Your task to perform on an android device: see tabs open on other devices in the chrome app Image 0: 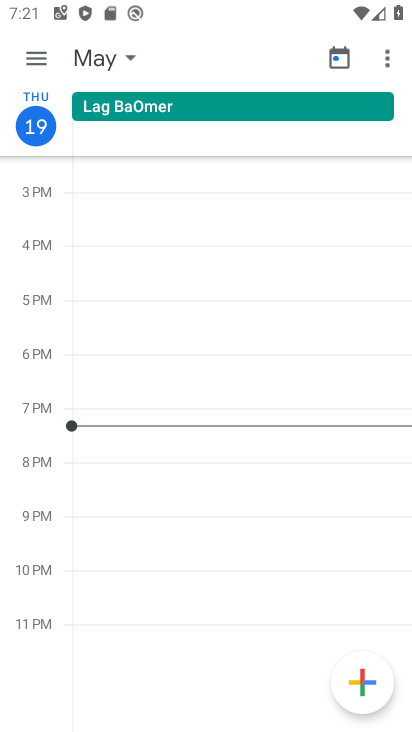
Step 0: press home button
Your task to perform on an android device: see tabs open on other devices in the chrome app Image 1: 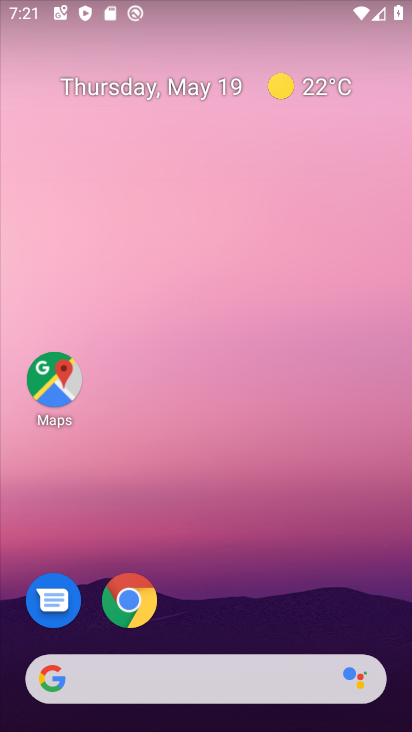
Step 1: drag from (290, 588) to (296, 163)
Your task to perform on an android device: see tabs open on other devices in the chrome app Image 2: 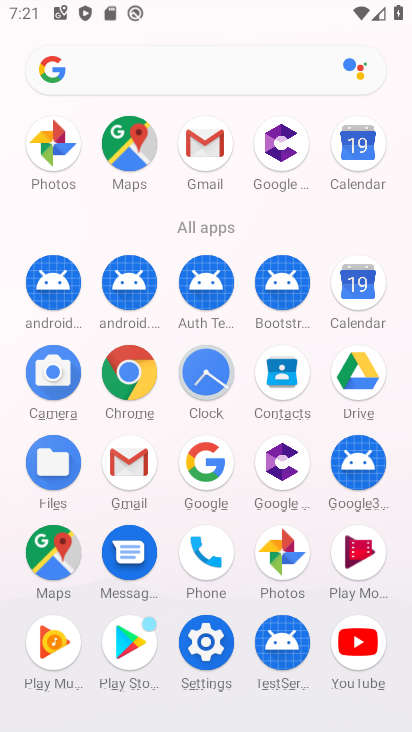
Step 2: click (124, 392)
Your task to perform on an android device: see tabs open on other devices in the chrome app Image 3: 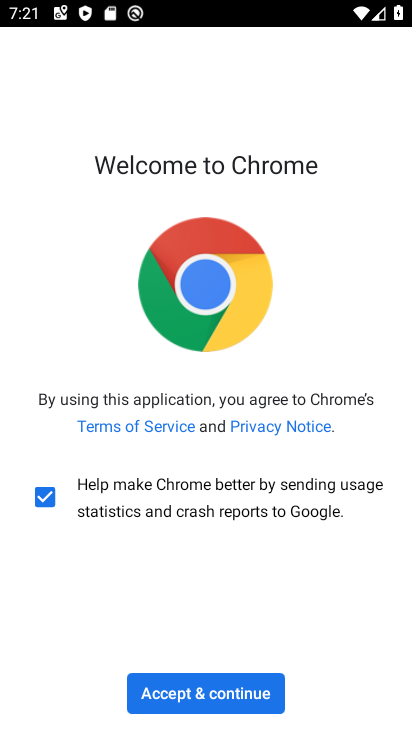
Step 3: click (226, 700)
Your task to perform on an android device: see tabs open on other devices in the chrome app Image 4: 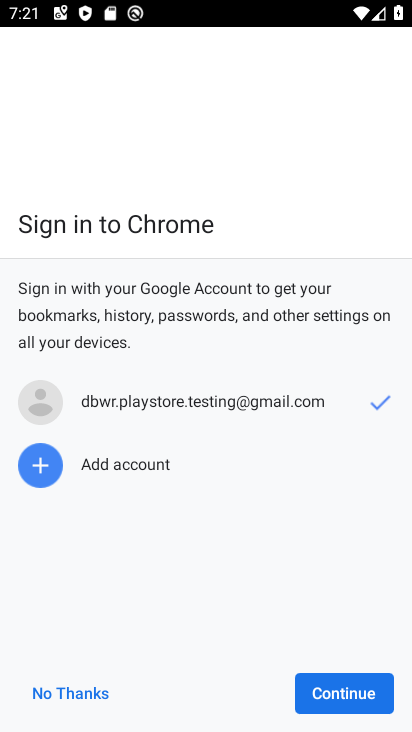
Step 4: click (316, 692)
Your task to perform on an android device: see tabs open on other devices in the chrome app Image 5: 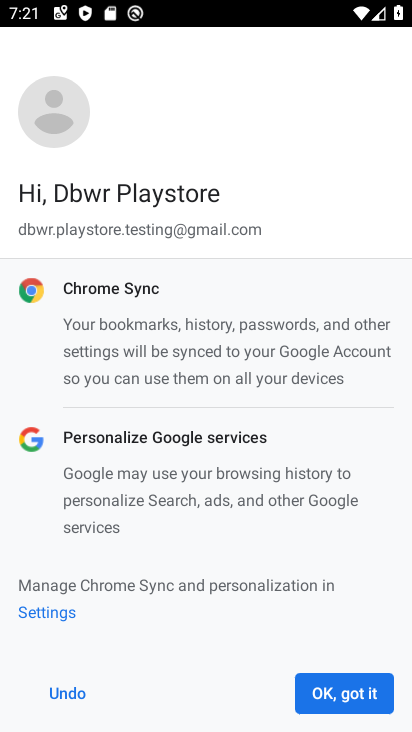
Step 5: click (317, 690)
Your task to perform on an android device: see tabs open on other devices in the chrome app Image 6: 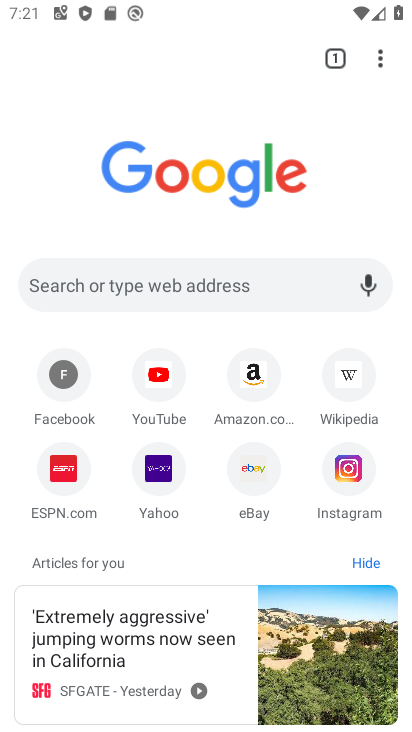
Step 6: click (327, 65)
Your task to perform on an android device: see tabs open on other devices in the chrome app Image 7: 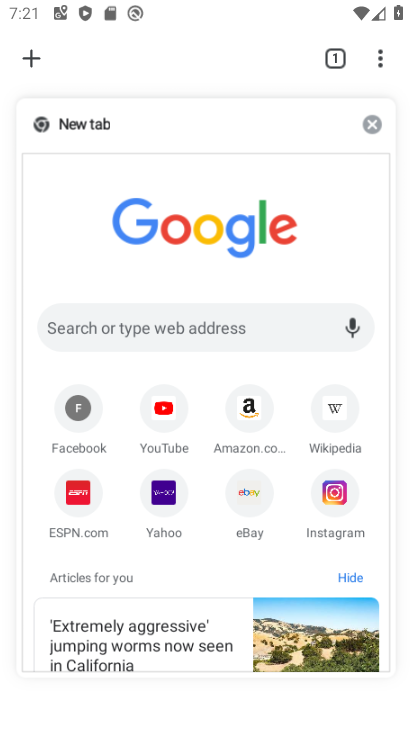
Step 7: task complete